Your task to perform on an android device: Open wifi settings Image 0: 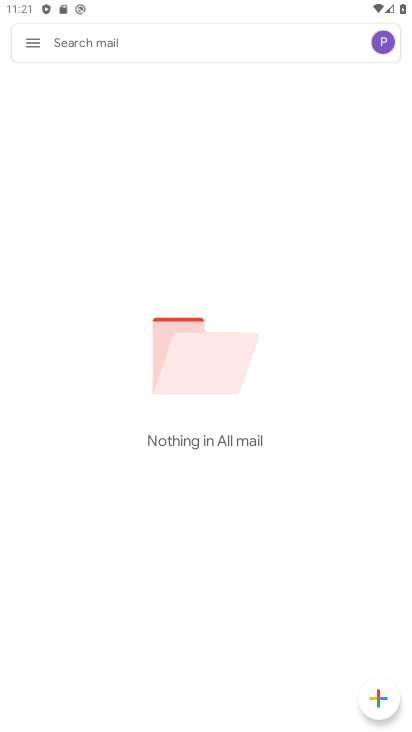
Step 0: press home button
Your task to perform on an android device: Open wifi settings Image 1: 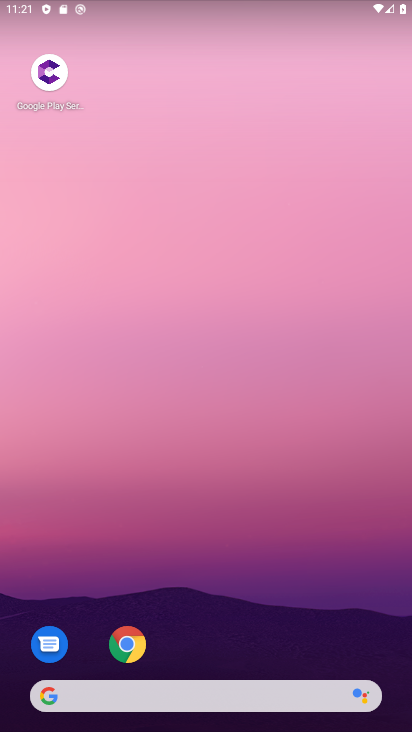
Step 1: drag from (220, 629) to (157, 46)
Your task to perform on an android device: Open wifi settings Image 2: 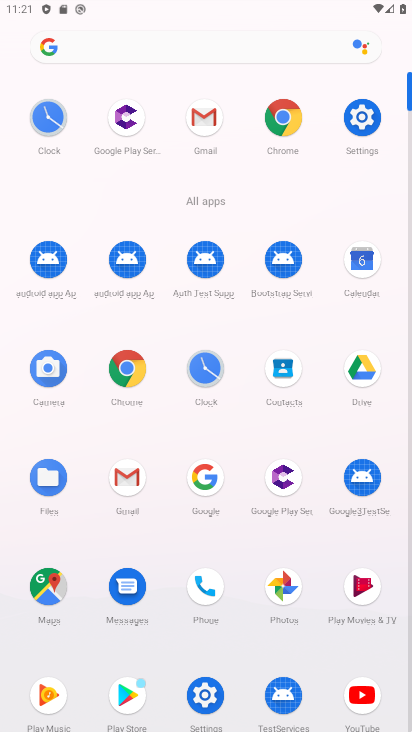
Step 2: click (216, 698)
Your task to perform on an android device: Open wifi settings Image 3: 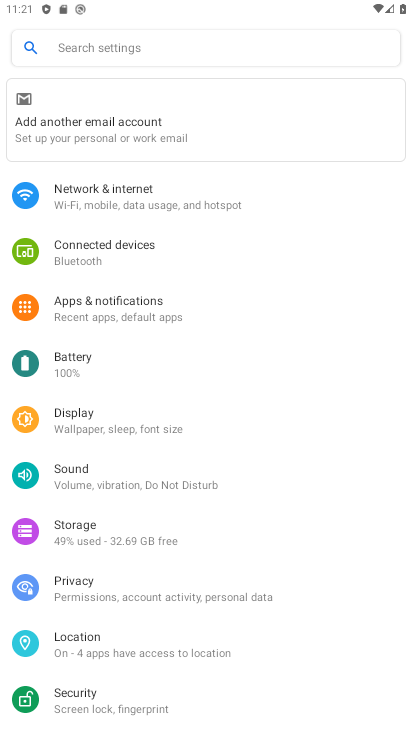
Step 3: click (165, 197)
Your task to perform on an android device: Open wifi settings Image 4: 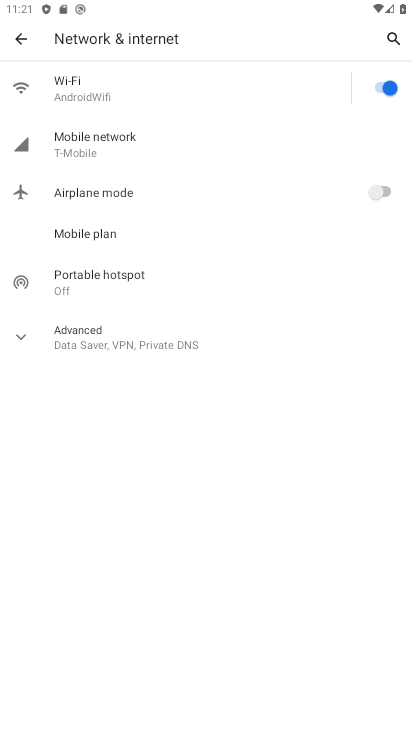
Step 4: click (30, 95)
Your task to perform on an android device: Open wifi settings Image 5: 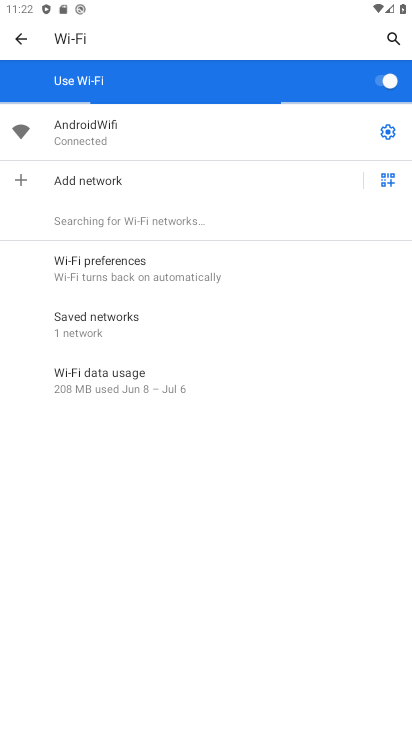
Step 5: task complete